Your task to perform on an android device: Go to Reddit.com Image 0: 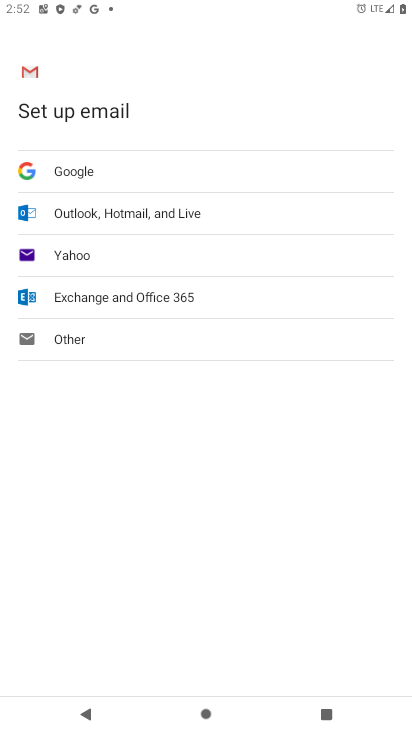
Step 0: press home button
Your task to perform on an android device: Go to Reddit.com Image 1: 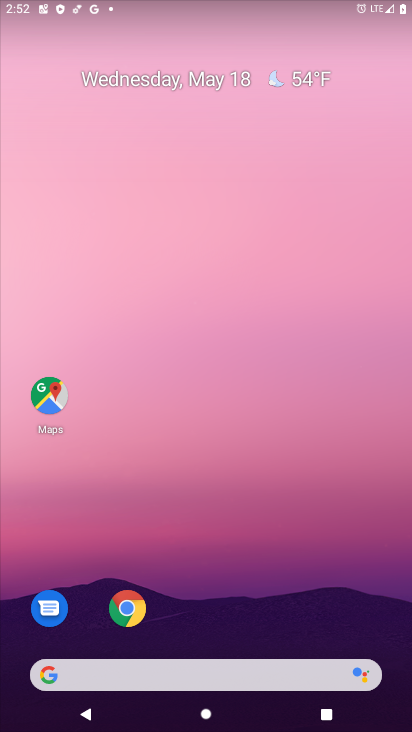
Step 1: click (129, 615)
Your task to perform on an android device: Go to Reddit.com Image 2: 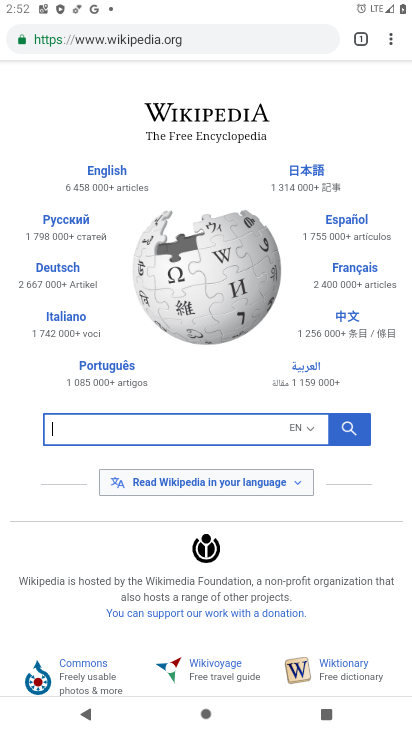
Step 2: click (90, 38)
Your task to perform on an android device: Go to Reddit.com Image 3: 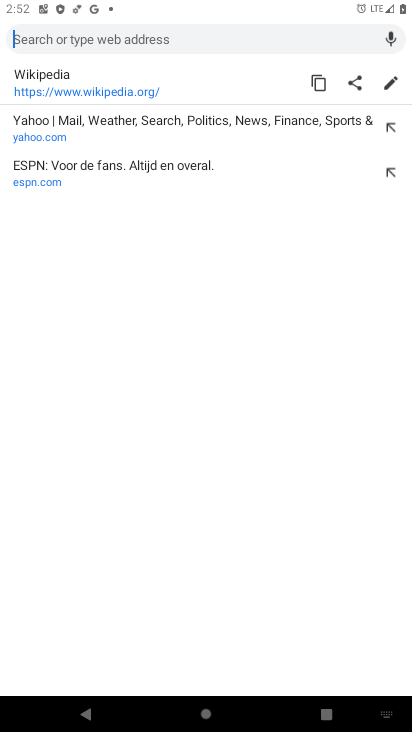
Step 3: type "reddit.com"
Your task to perform on an android device: Go to Reddit.com Image 4: 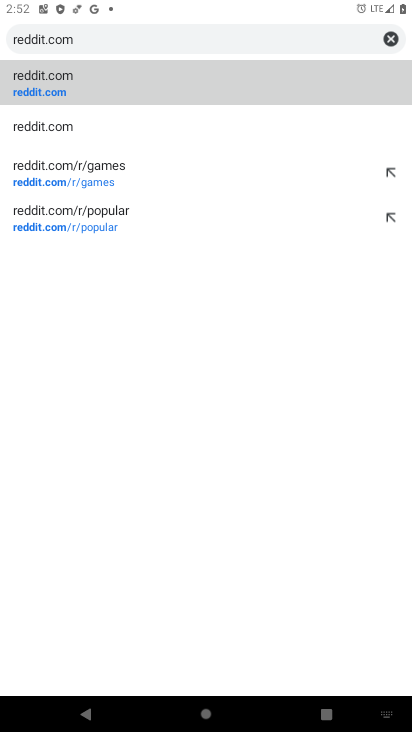
Step 4: click (37, 131)
Your task to perform on an android device: Go to Reddit.com Image 5: 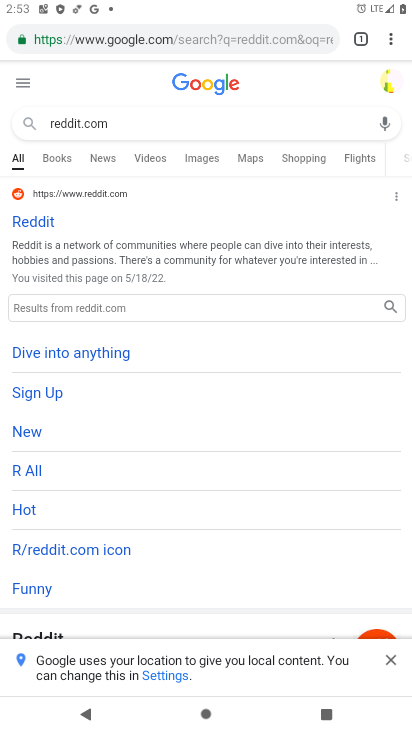
Step 5: click (22, 237)
Your task to perform on an android device: Go to Reddit.com Image 6: 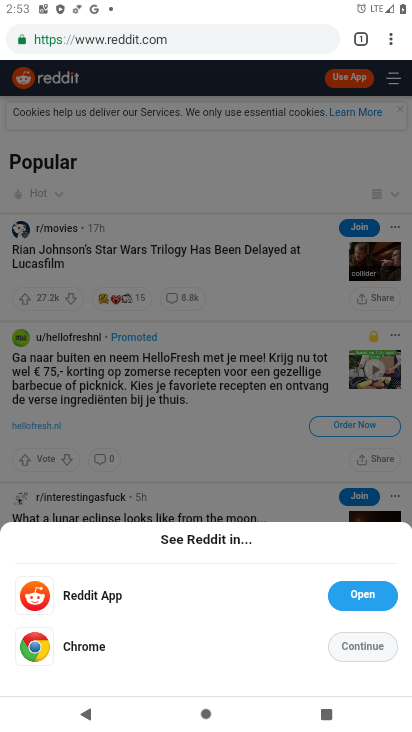
Step 6: task complete